Your task to perform on an android device: turn on location history Image 0: 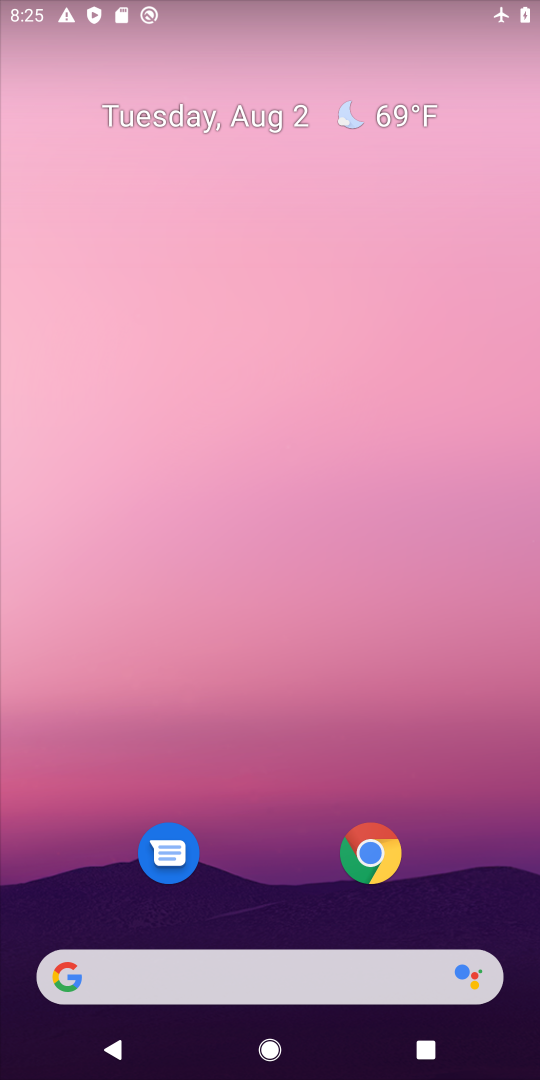
Step 0: drag from (298, 712) to (239, 145)
Your task to perform on an android device: turn on location history Image 1: 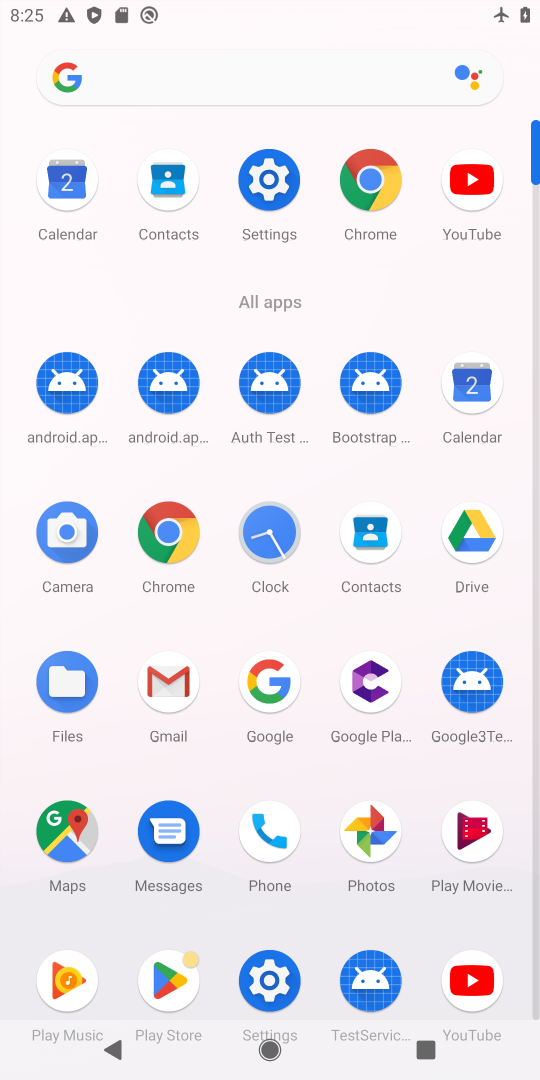
Step 1: click (267, 199)
Your task to perform on an android device: turn on location history Image 2: 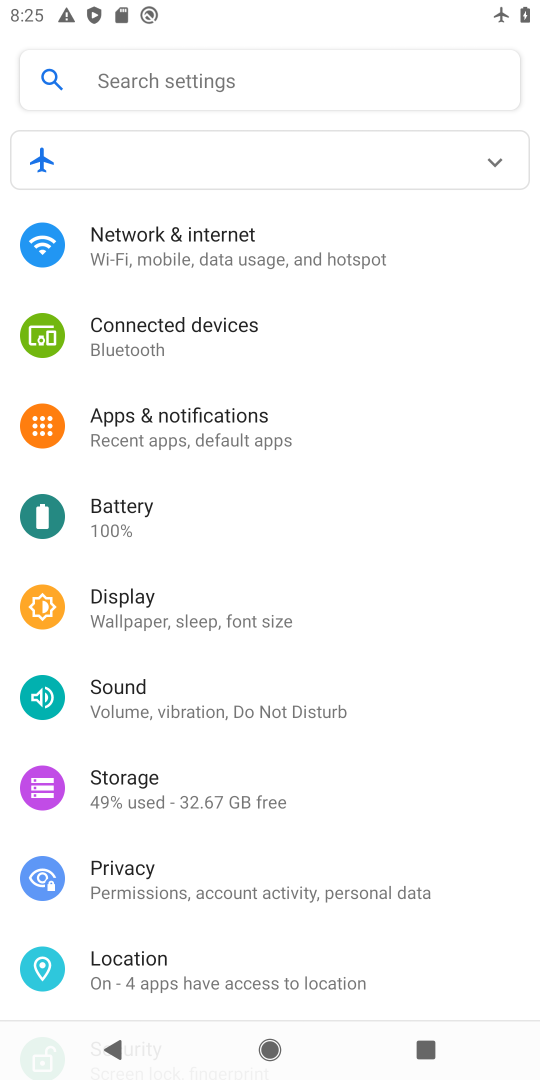
Step 2: click (125, 962)
Your task to perform on an android device: turn on location history Image 3: 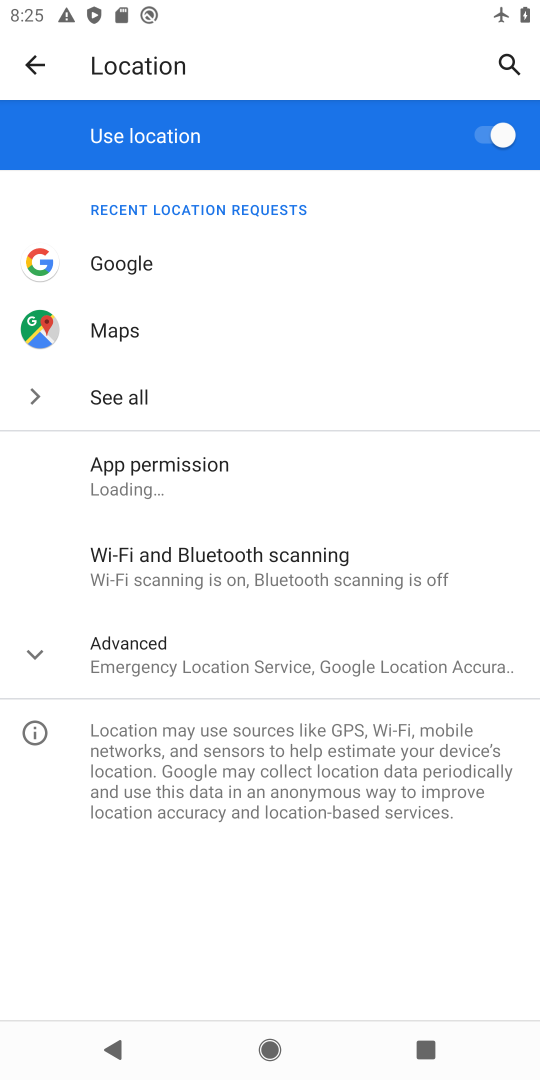
Step 3: click (193, 676)
Your task to perform on an android device: turn on location history Image 4: 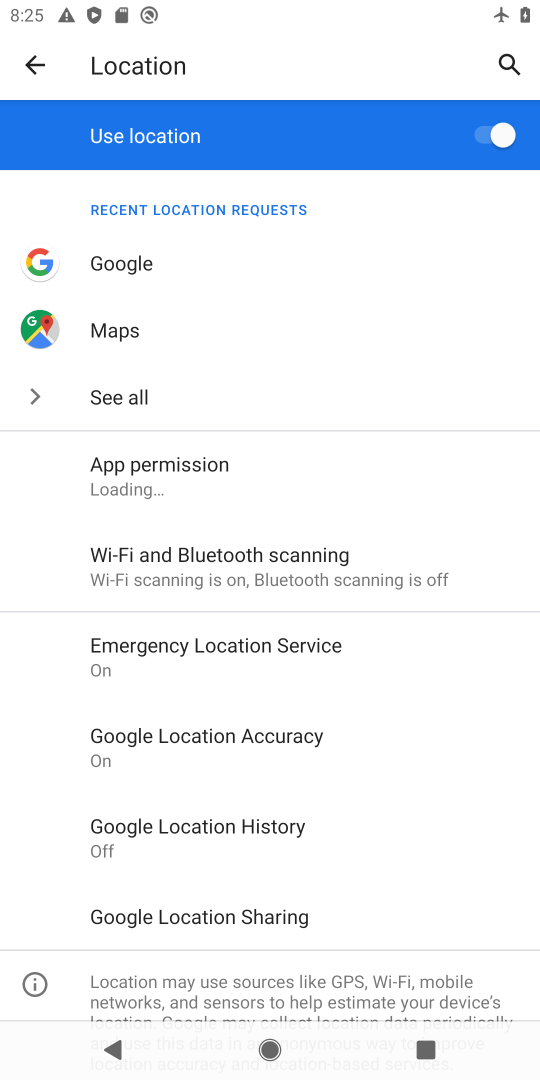
Step 4: click (231, 841)
Your task to perform on an android device: turn on location history Image 5: 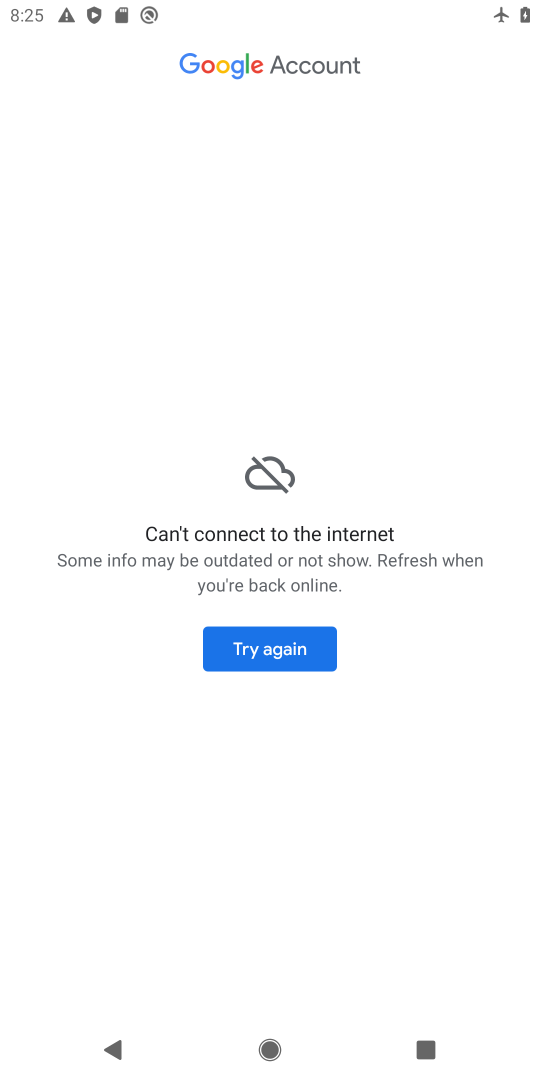
Step 5: click (288, 665)
Your task to perform on an android device: turn on location history Image 6: 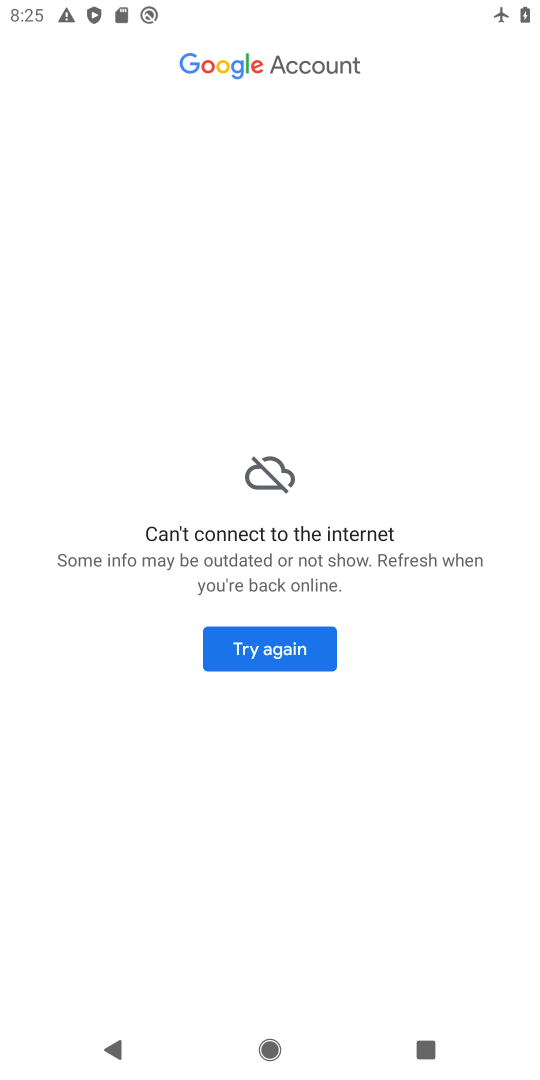
Step 6: click (282, 656)
Your task to perform on an android device: turn on location history Image 7: 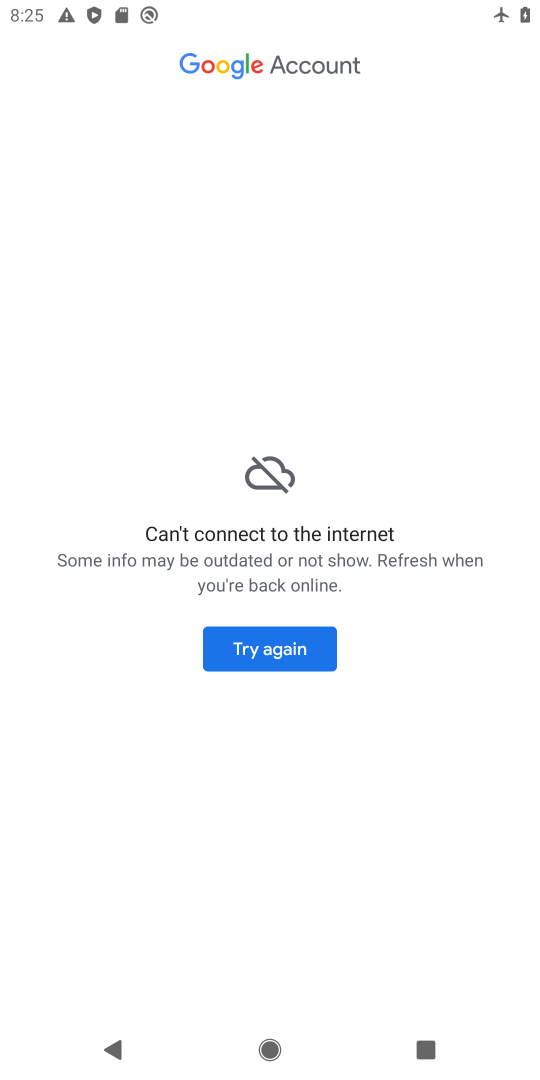
Step 7: task complete